Your task to perform on an android device: Open Google Chrome and click the shortcut for Amazon.com Image 0: 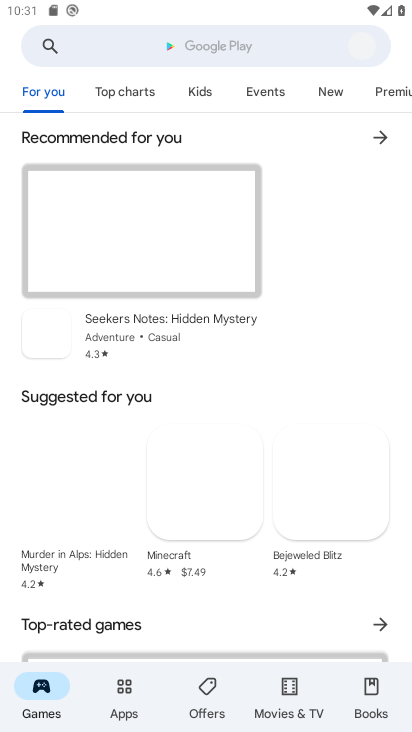
Step 0: drag from (161, 507) to (189, 7)
Your task to perform on an android device: Open Google Chrome and click the shortcut for Amazon.com Image 1: 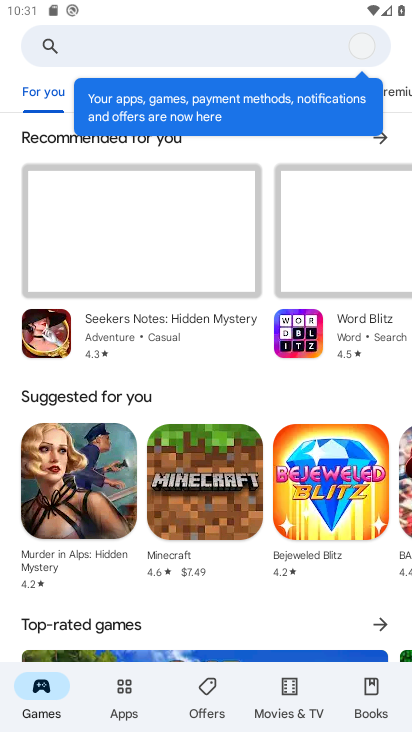
Step 1: press home button
Your task to perform on an android device: Open Google Chrome and click the shortcut for Amazon.com Image 2: 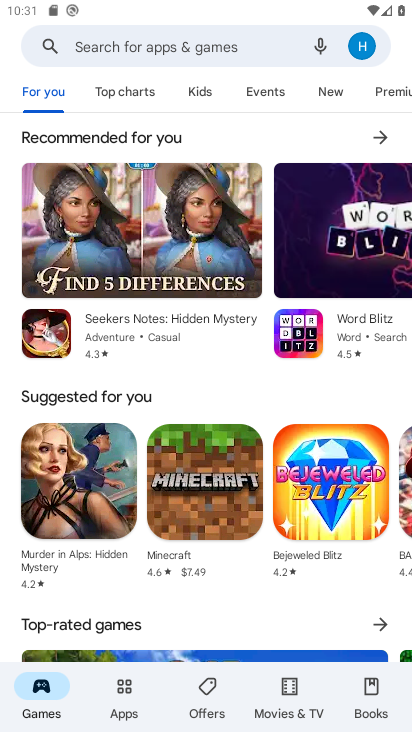
Step 2: drag from (188, 620) to (251, 168)
Your task to perform on an android device: Open Google Chrome and click the shortcut for Amazon.com Image 3: 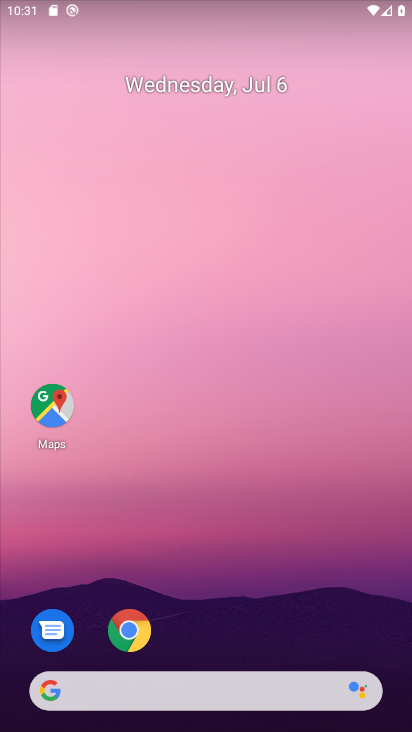
Step 3: drag from (198, 541) to (230, 86)
Your task to perform on an android device: Open Google Chrome and click the shortcut for Amazon.com Image 4: 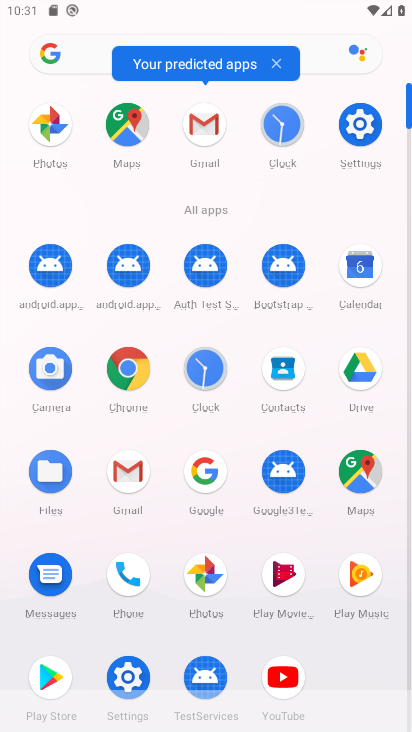
Step 4: click (134, 372)
Your task to perform on an android device: Open Google Chrome and click the shortcut for Amazon.com Image 5: 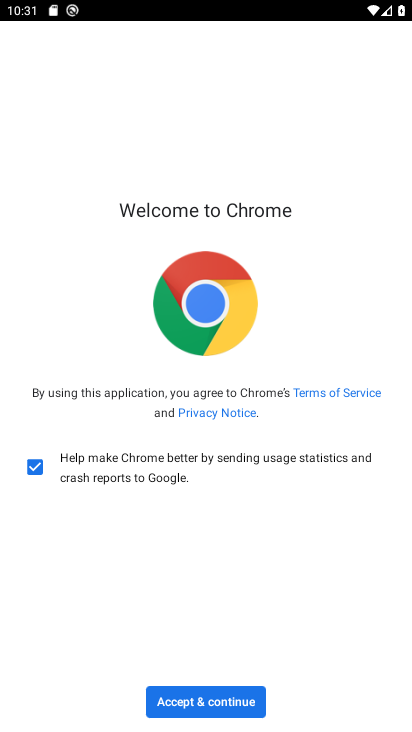
Step 5: click (201, 698)
Your task to perform on an android device: Open Google Chrome and click the shortcut for Amazon.com Image 6: 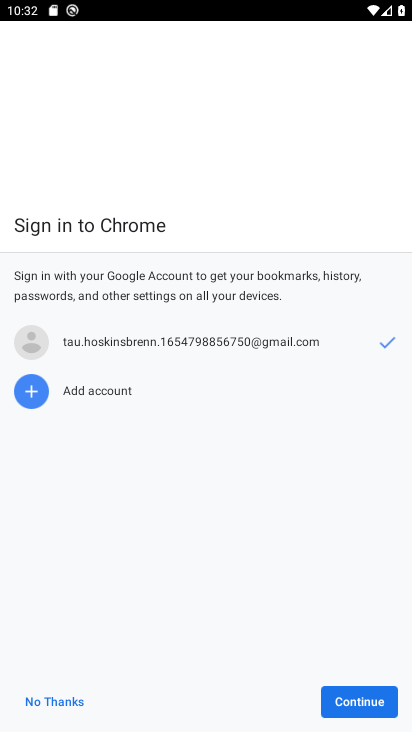
Step 6: click (34, 706)
Your task to perform on an android device: Open Google Chrome and click the shortcut for Amazon.com Image 7: 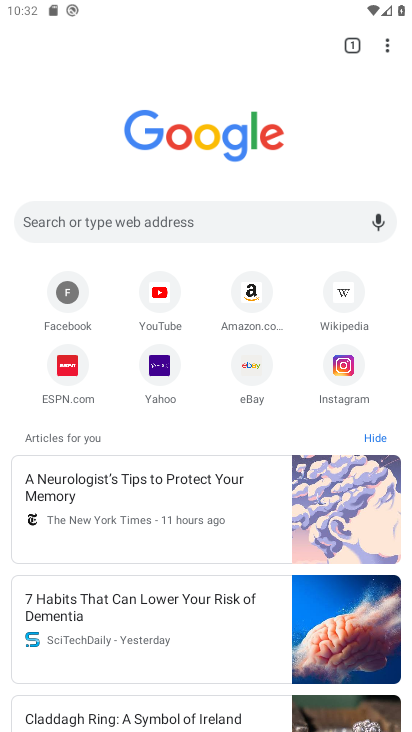
Step 7: click (258, 292)
Your task to perform on an android device: Open Google Chrome and click the shortcut for Amazon.com Image 8: 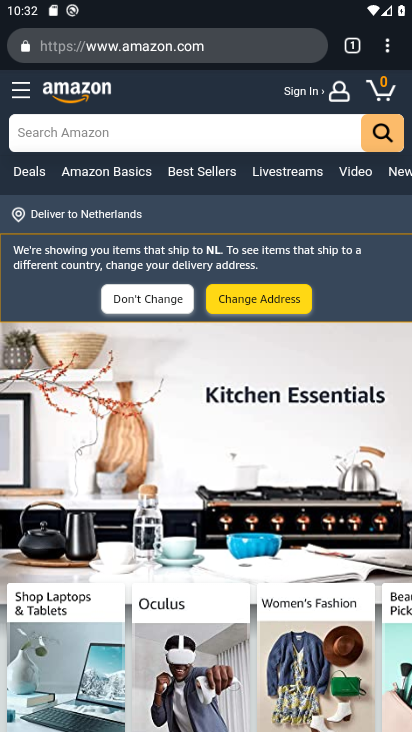
Step 8: task complete